Your task to perform on an android device: snooze an email in the gmail app Image 0: 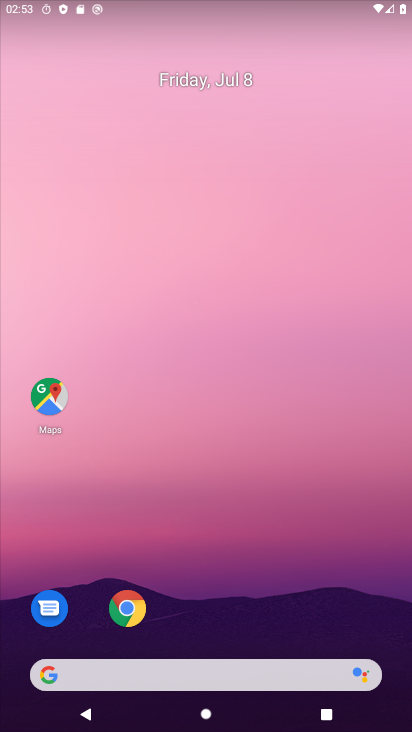
Step 0: drag from (206, 654) to (201, 335)
Your task to perform on an android device: snooze an email in the gmail app Image 1: 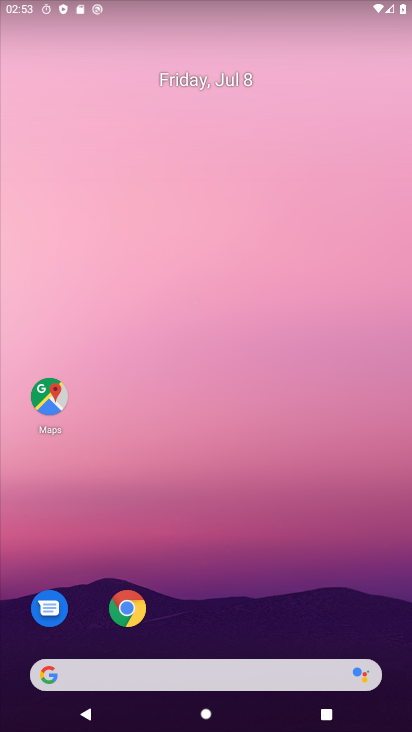
Step 1: drag from (222, 626) to (225, 222)
Your task to perform on an android device: snooze an email in the gmail app Image 2: 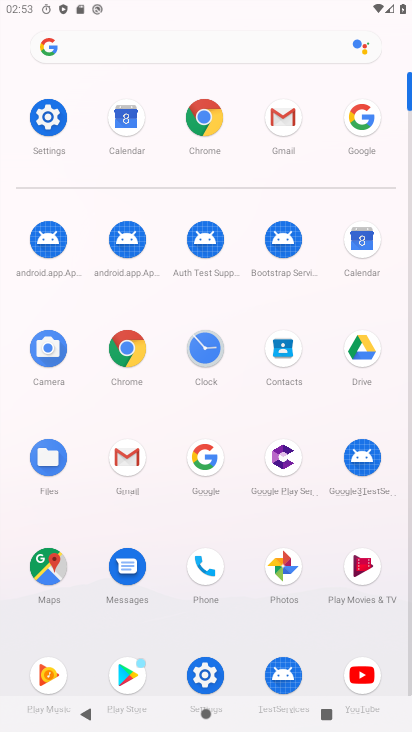
Step 2: click (286, 114)
Your task to perform on an android device: snooze an email in the gmail app Image 3: 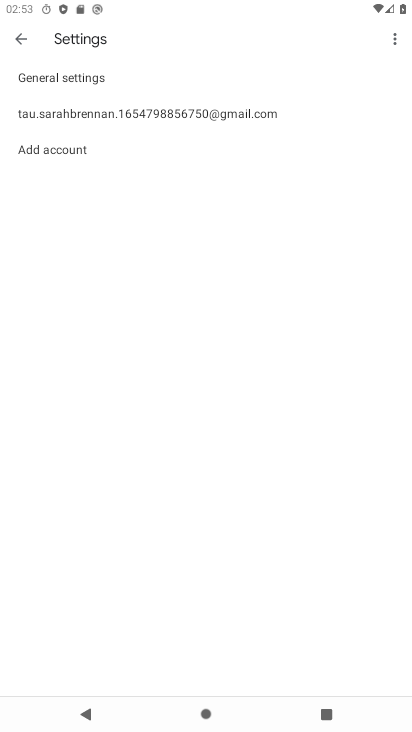
Step 3: task complete